Your task to perform on an android device: find photos in the google photos app Image 0: 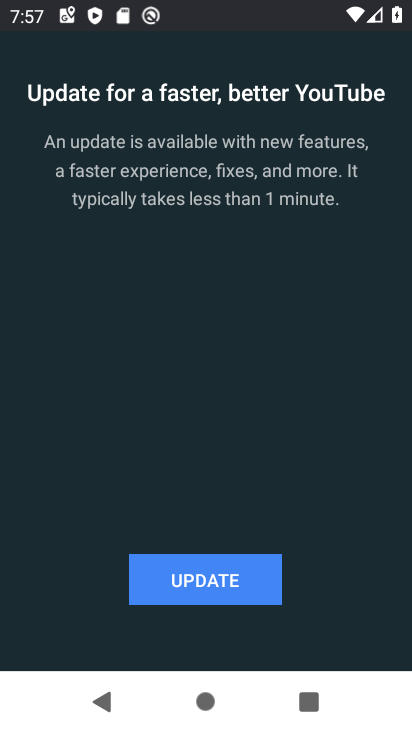
Step 0: press home button
Your task to perform on an android device: find photos in the google photos app Image 1: 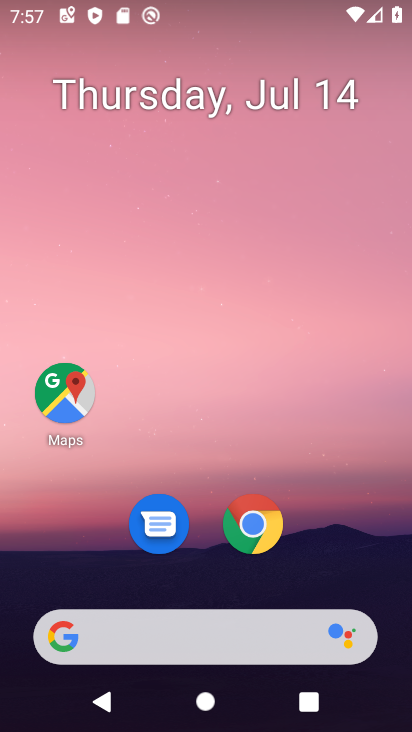
Step 1: drag from (317, 589) to (292, 1)
Your task to perform on an android device: find photos in the google photos app Image 2: 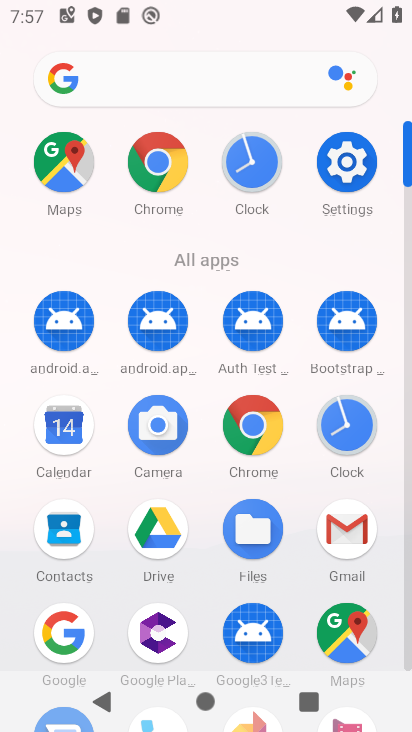
Step 2: drag from (227, 463) to (244, 151)
Your task to perform on an android device: find photos in the google photos app Image 3: 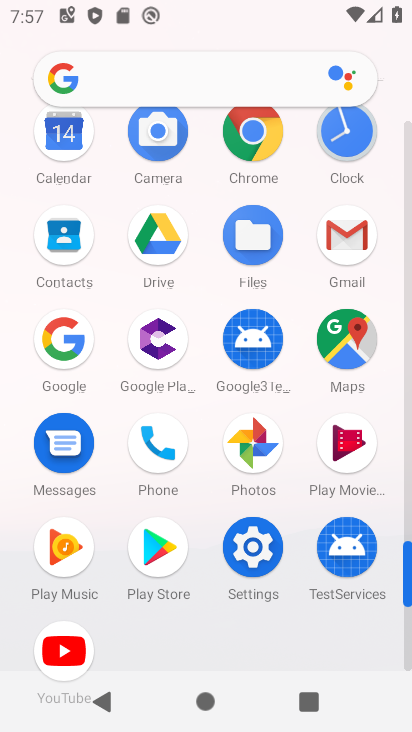
Step 3: click (262, 450)
Your task to perform on an android device: find photos in the google photos app Image 4: 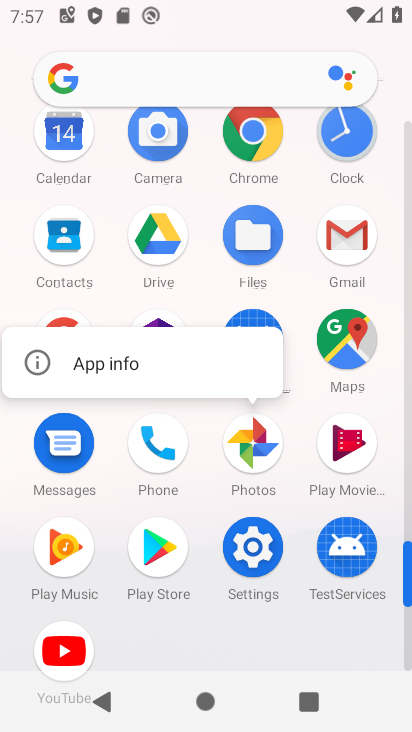
Step 4: click (262, 451)
Your task to perform on an android device: find photos in the google photos app Image 5: 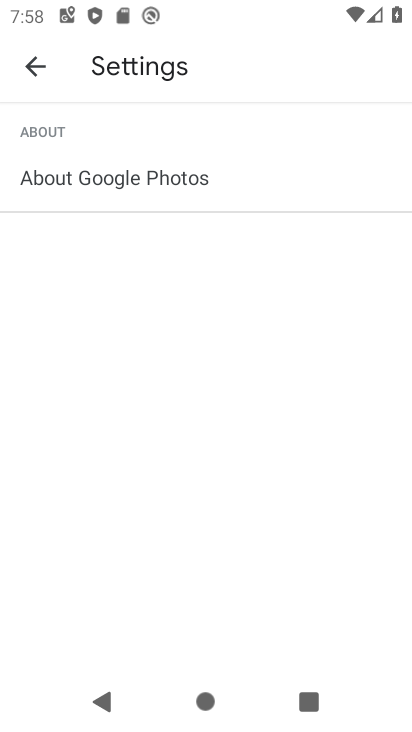
Step 5: click (42, 56)
Your task to perform on an android device: find photos in the google photos app Image 6: 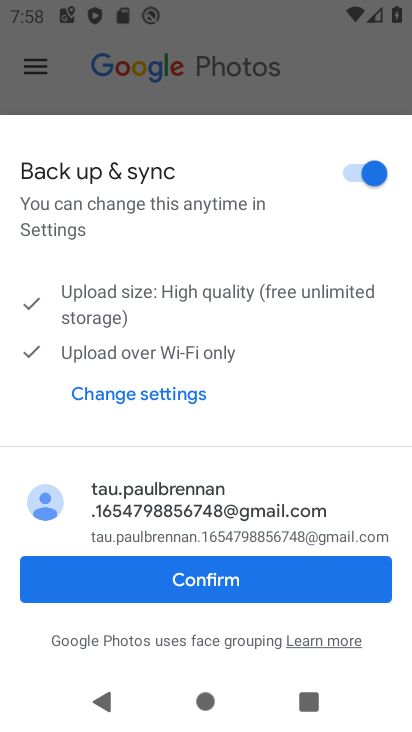
Step 6: click (257, 574)
Your task to perform on an android device: find photos in the google photos app Image 7: 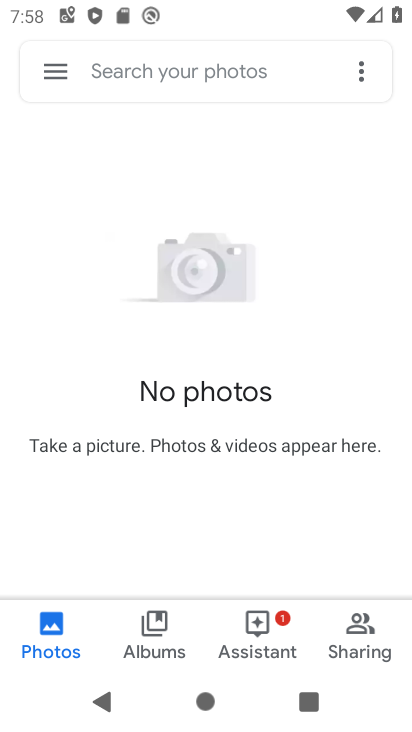
Step 7: task complete